Your task to perform on an android device: Open the web browser Image 0: 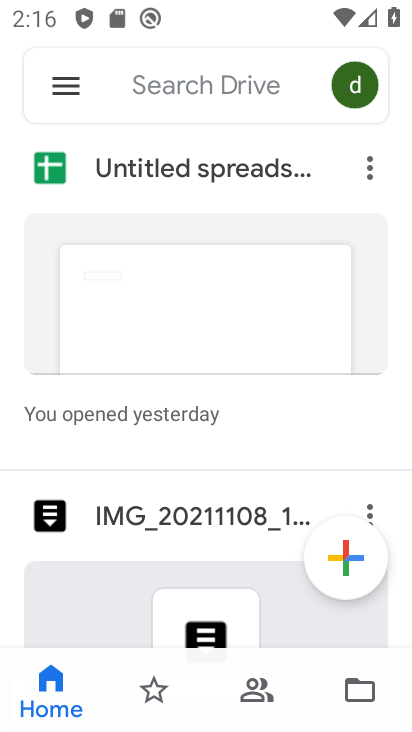
Step 0: press back button
Your task to perform on an android device: Open the web browser Image 1: 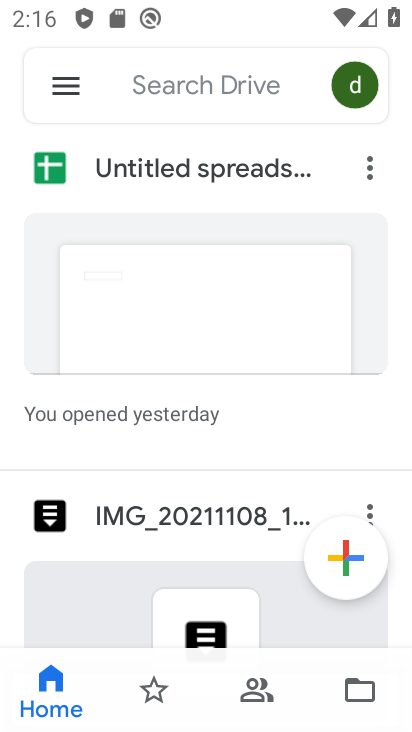
Step 1: press home button
Your task to perform on an android device: Open the web browser Image 2: 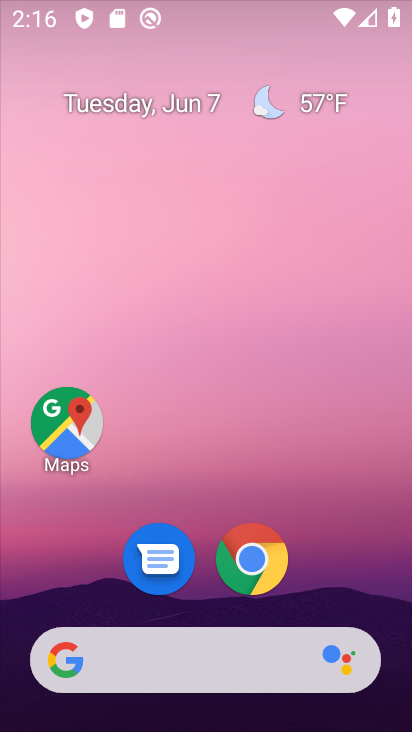
Step 2: press back button
Your task to perform on an android device: Open the web browser Image 3: 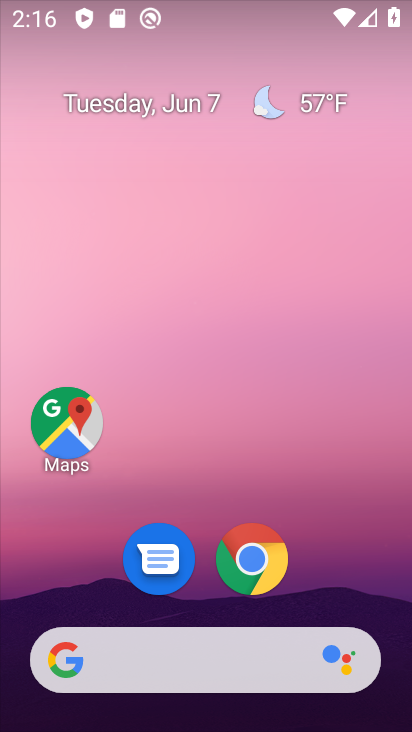
Step 3: drag from (327, 491) to (247, 3)
Your task to perform on an android device: Open the web browser Image 4: 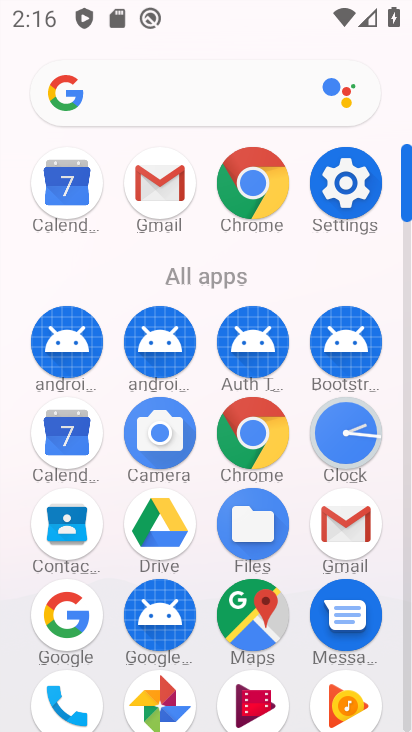
Step 4: drag from (13, 581) to (13, 259)
Your task to perform on an android device: Open the web browser Image 5: 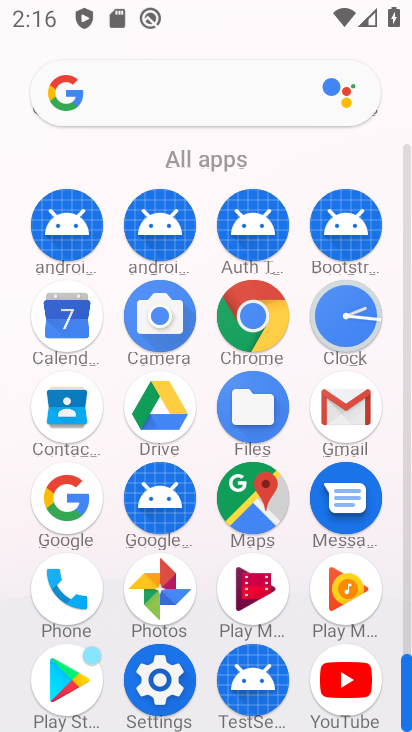
Step 5: click (250, 312)
Your task to perform on an android device: Open the web browser Image 6: 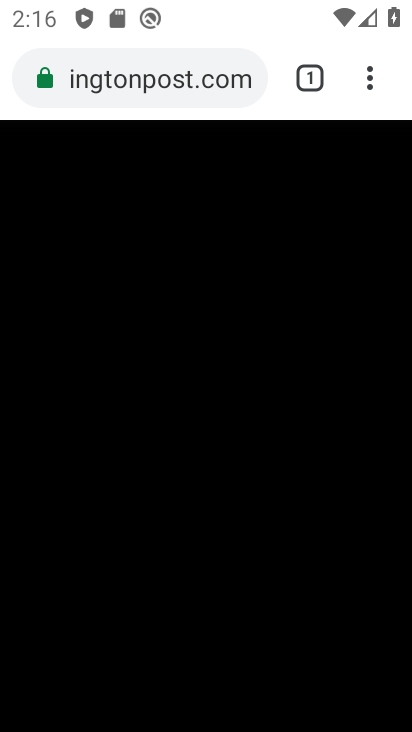
Step 6: click (314, 74)
Your task to perform on an android device: Open the web browser Image 7: 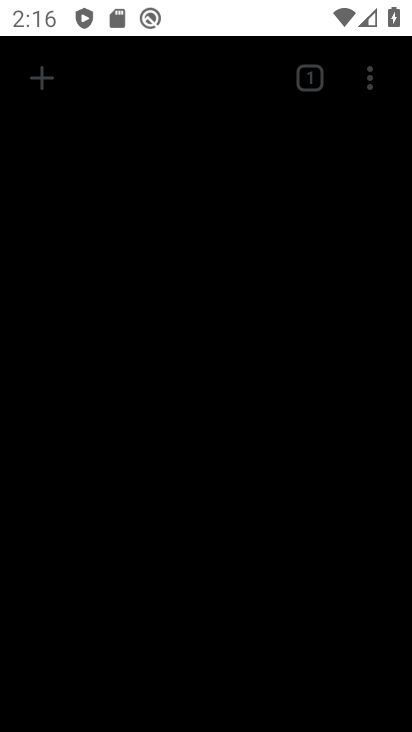
Step 7: click (34, 71)
Your task to perform on an android device: Open the web browser Image 8: 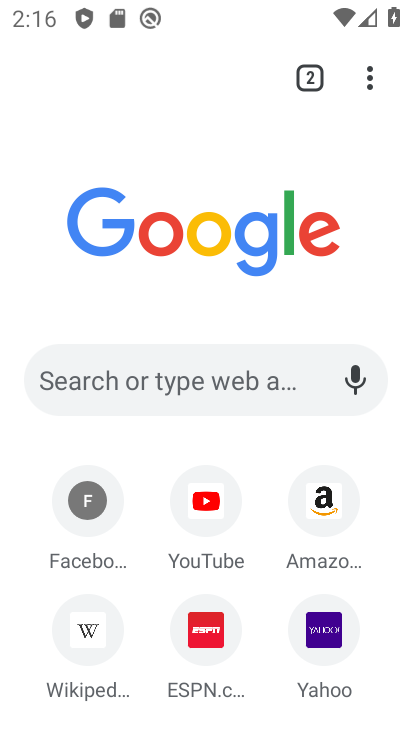
Step 8: task complete